Your task to perform on an android device: change the clock style Image 0: 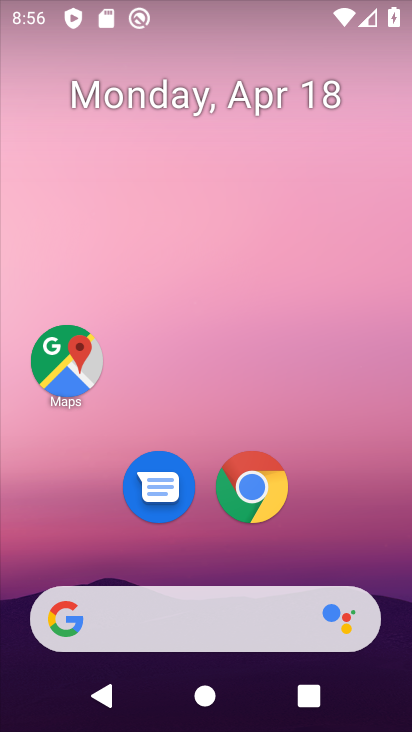
Step 0: drag from (305, 491) to (338, 2)
Your task to perform on an android device: change the clock style Image 1: 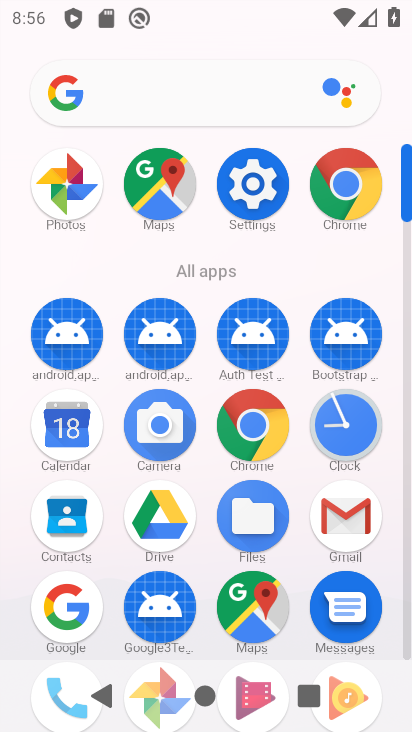
Step 1: click (337, 423)
Your task to perform on an android device: change the clock style Image 2: 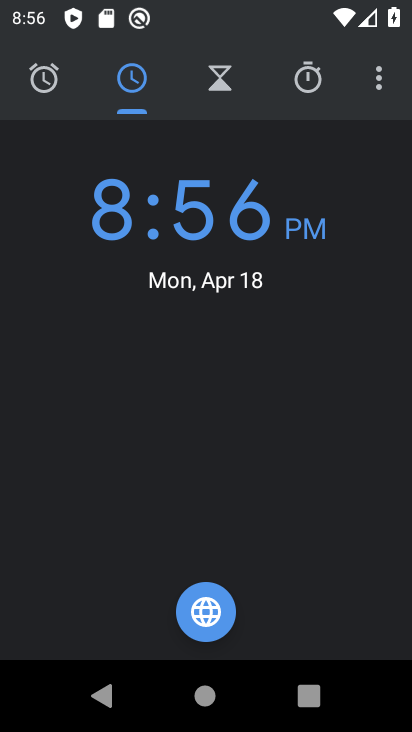
Step 2: click (380, 77)
Your task to perform on an android device: change the clock style Image 3: 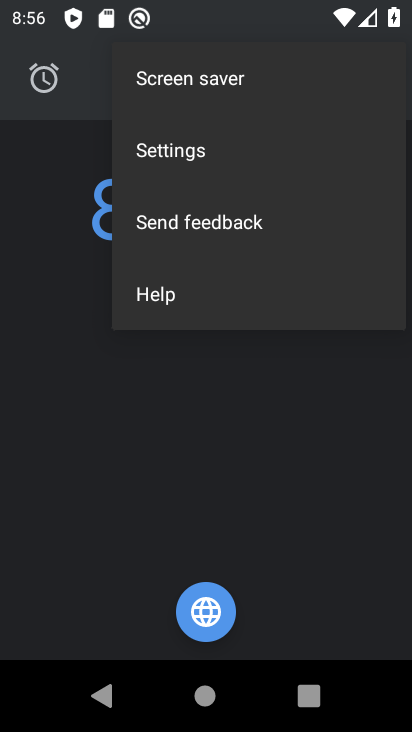
Step 3: click (324, 149)
Your task to perform on an android device: change the clock style Image 4: 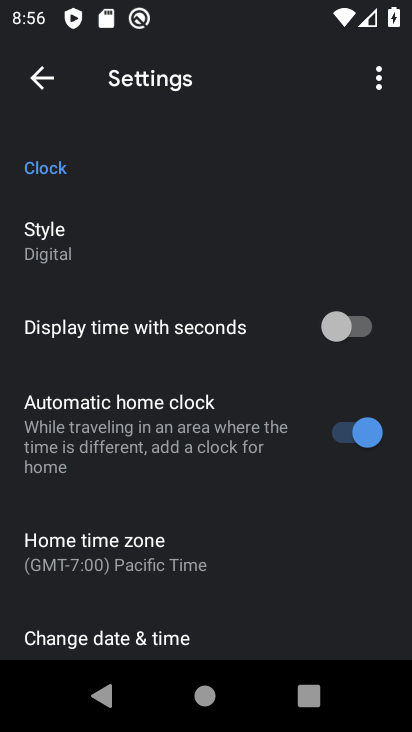
Step 4: click (216, 235)
Your task to perform on an android device: change the clock style Image 5: 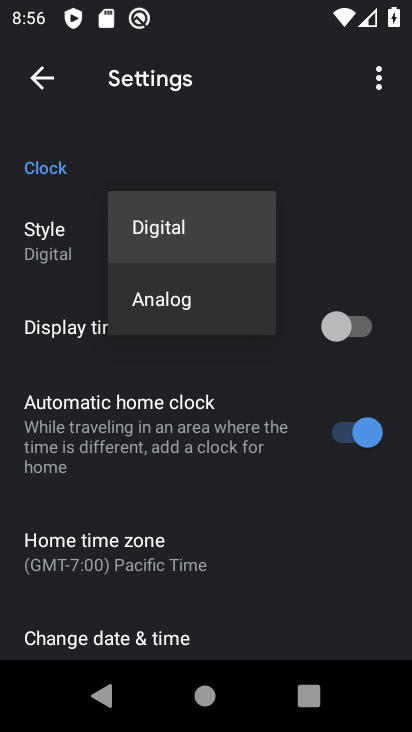
Step 5: click (197, 306)
Your task to perform on an android device: change the clock style Image 6: 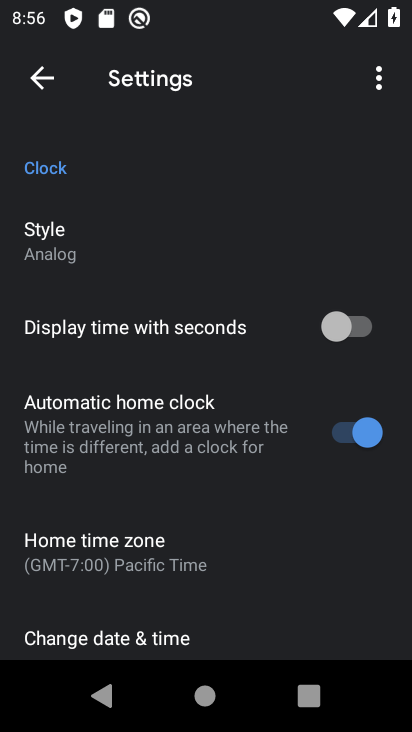
Step 6: task complete